Your task to perform on an android device: open chrome privacy settings Image 0: 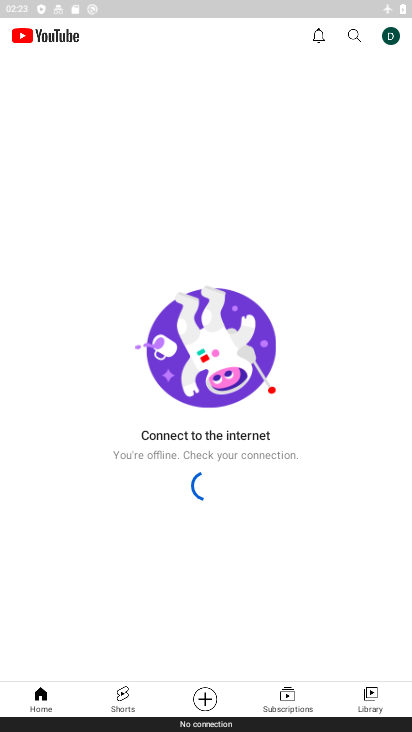
Step 0: press home button
Your task to perform on an android device: open chrome privacy settings Image 1: 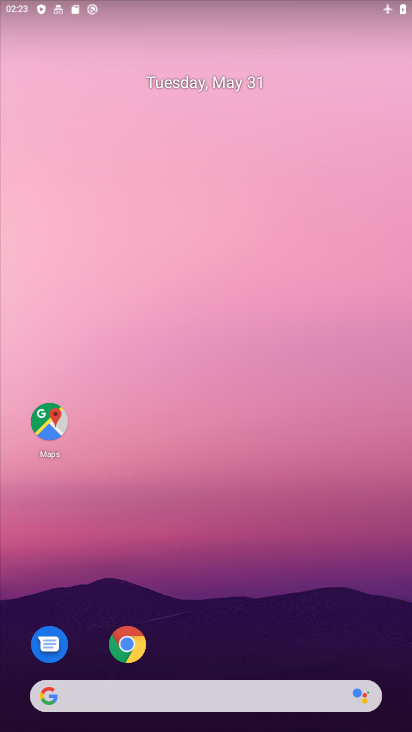
Step 1: drag from (282, 620) to (213, 97)
Your task to perform on an android device: open chrome privacy settings Image 2: 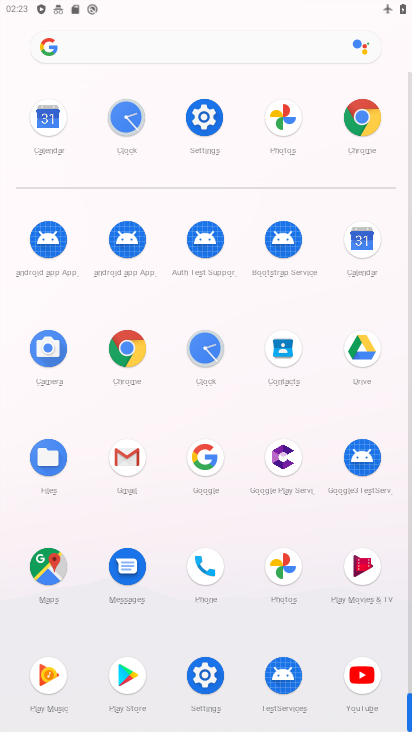
Step 2: click (199, 110)
Your task to perform on an android device: open chrome privacy settings Image 3: 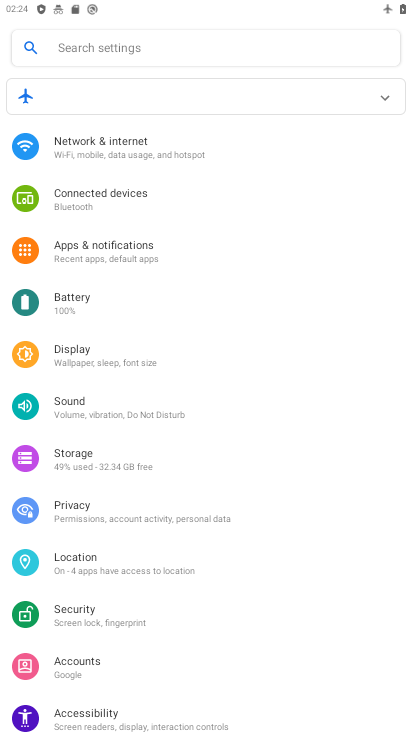
Step 3: drag from (128, 524) to (167, 349)
Your task to perform on an android device: open chrome privacy settings Image 4: 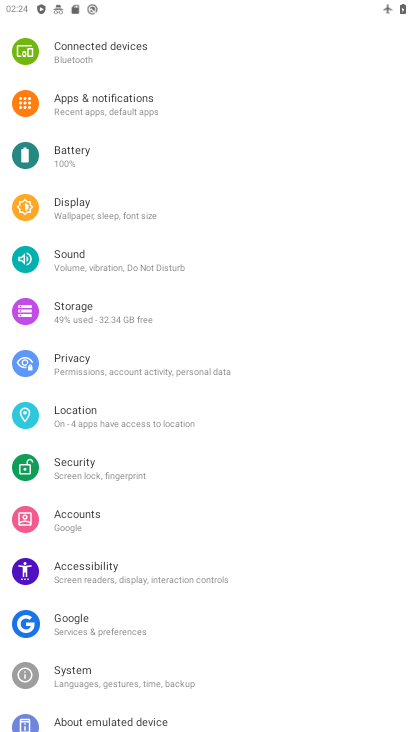
Step 4: click (92, 364)
Your task to perform on an android device: open chrome privacy settings Image 5: 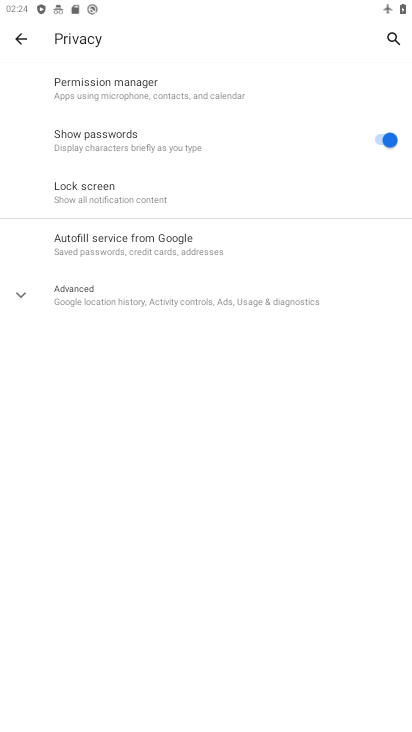
Step 5: task complete